Your task to perform on an android device: Open ESPN.com Image 0: 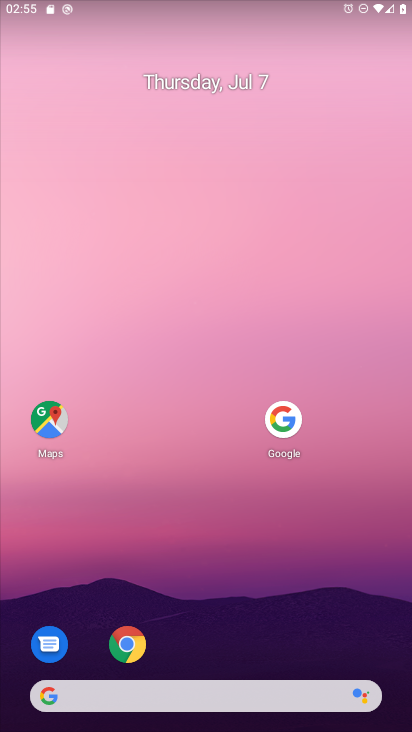
Step 0: click (134, 654)
Your task to perform on an android device: Open ESPN.com Image 1: 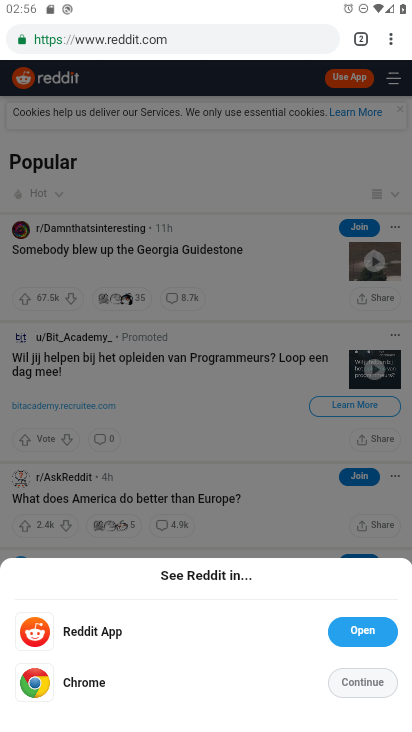
Step 1: drag from (387, 38) to (288, 83)
Your task to perform on an android device: Open ESPN.com Image 2: 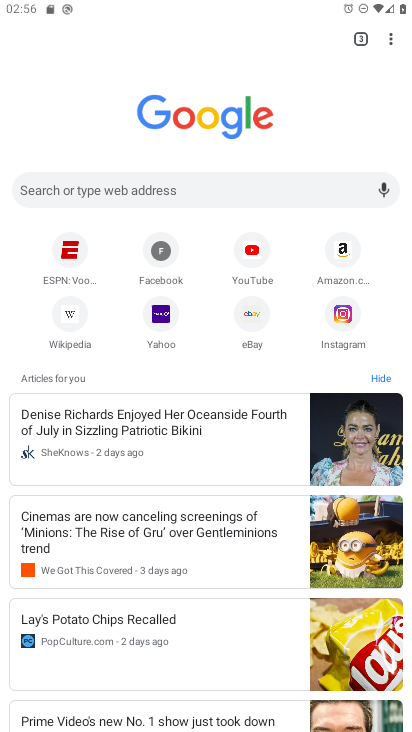
Step 2: click (64, 255)
Your task to perform on an android device: Open ESPN.com Image 3: 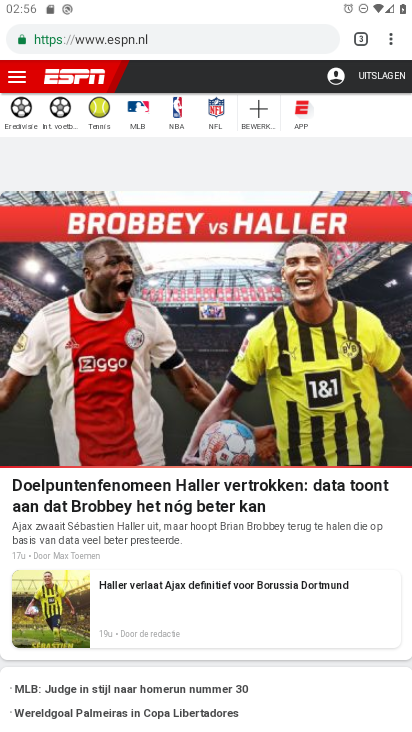
Step 3: task complete